Your task to perform on an android device: change notification settings in the gmail app Image 0: 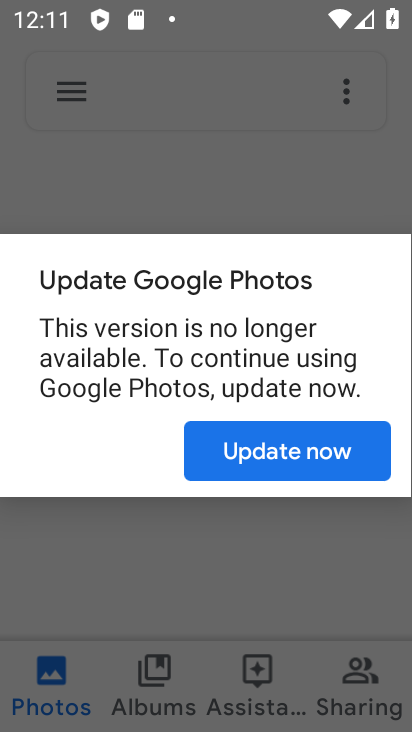
Step 0: press home button
Your task to perform on an android device: change notification settings in the gmail app Image 1: 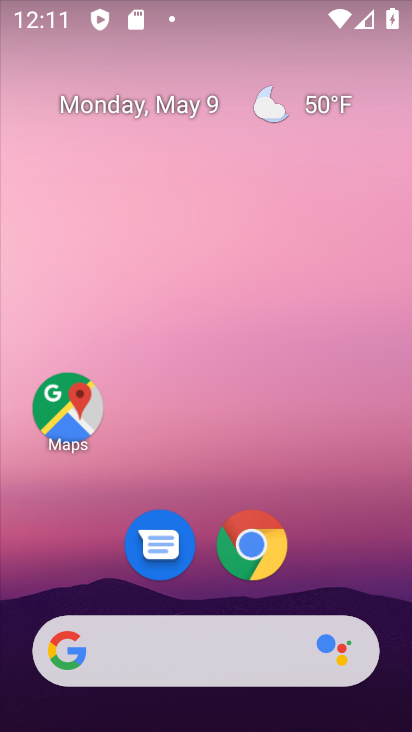
Step 1: drag from (198, 584) to (204, 93)
Your task to perform on an android device: change notification settings in the gmail app Image 2: 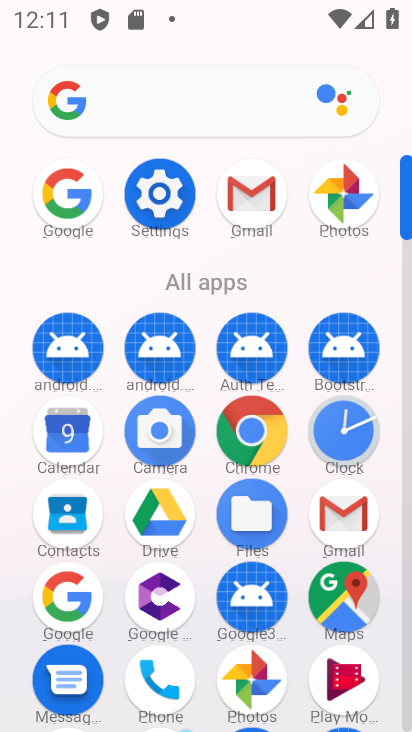
Step 2: click (242, 180)
Your task to perform on an android device: change notification settings in the gmail app Image 3: 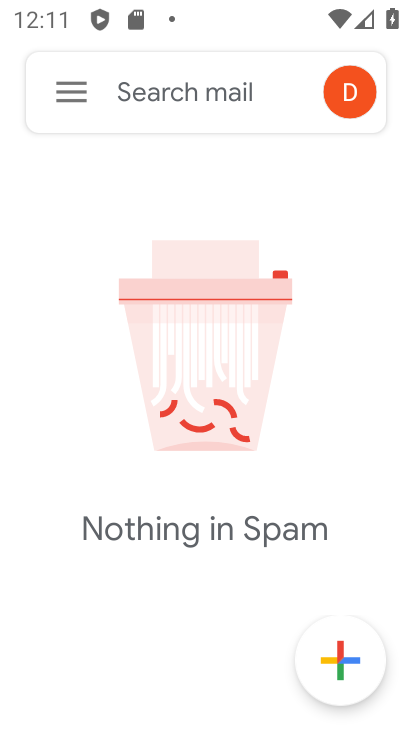
Step 3: click (64, 99)
Your task to perform on an android device: change notification settings in the gmail app Image 4: 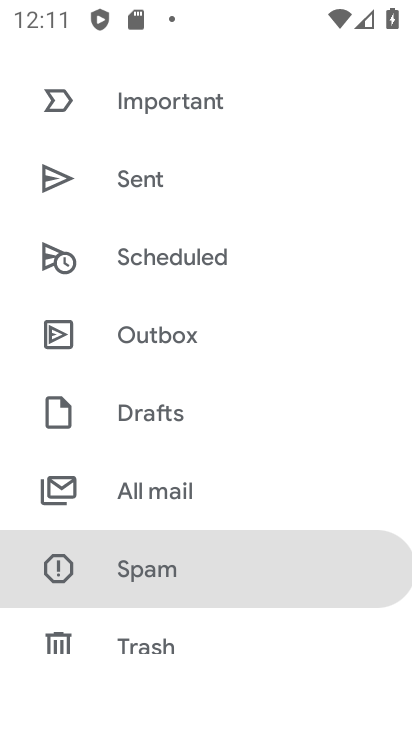
Step 4: drag from (238, 558) to (257, 256)
Your task to perform on an android device: change notification settings in the gmail app Image 5: 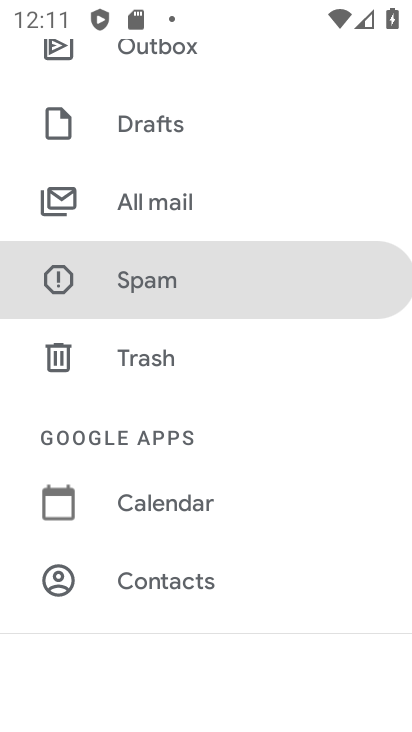
Step 5: drag from (265, 579) to (265, 343)
Your task to perform on an android device: change notification settings in the gmail app Image 6: 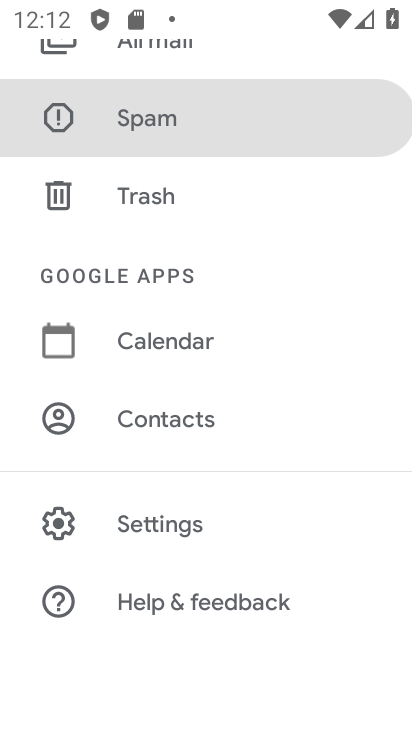
Step 6: click (197, 527)
Your task to perform on an android device: change notification settings in the gmail app Image 7: 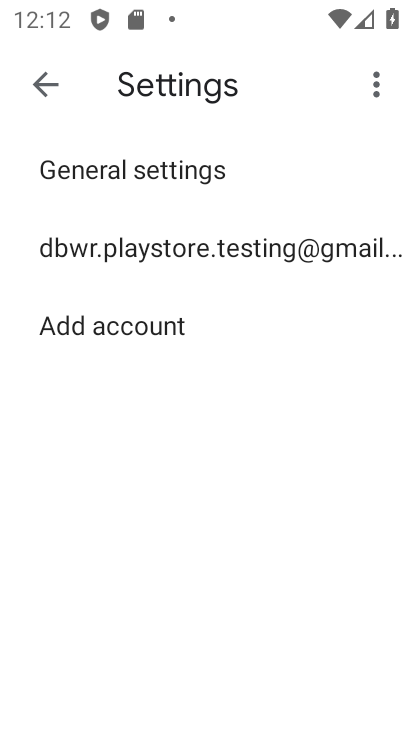
Step 7: click (275, 232)
Your task to perform on an android device: change notification settings in the gmail app Image 8: 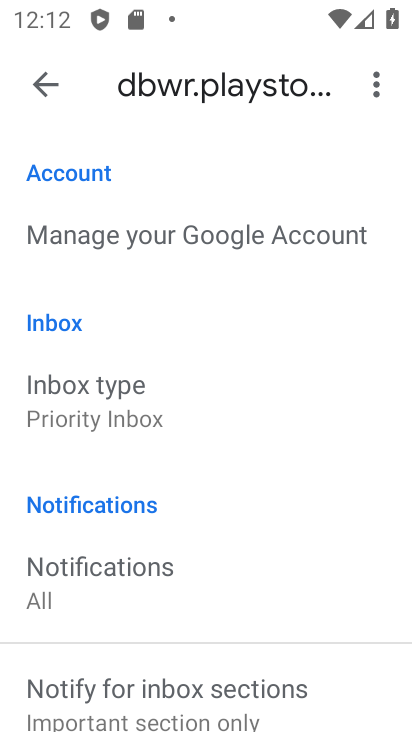
Step 8: drag from (169, 632) to (218, 284)
Your task to perform on an android device: change notification settings in the gmail app Image 9: 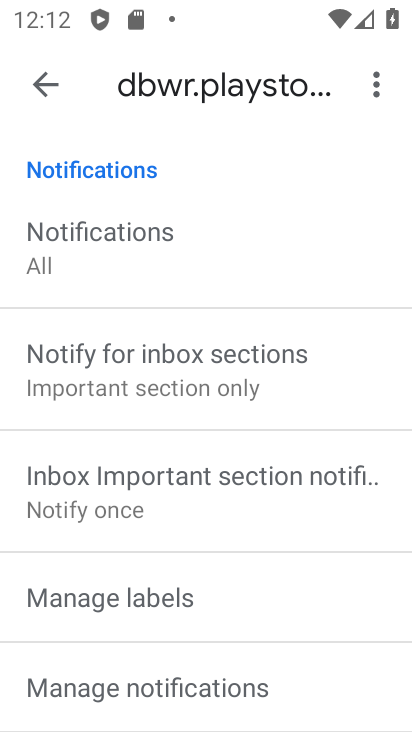
Step 9: click (171, 708)
Your task to perform on an android device: change notification settings in the gmail app Image 10: 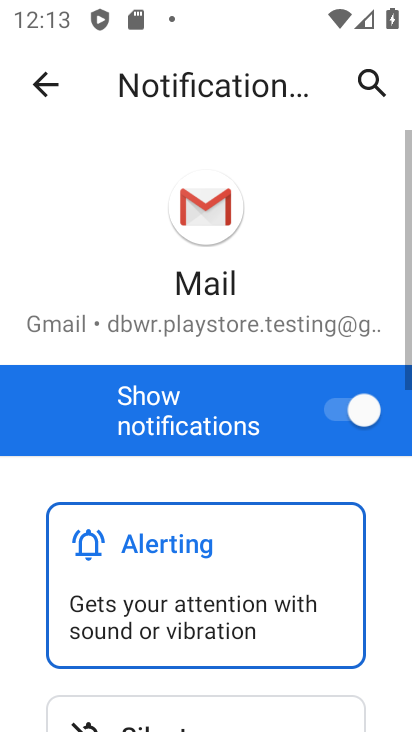
Step 10: click (321, 401)
Your task to perform on an android device: change notification settings in the gmail app Image 11: 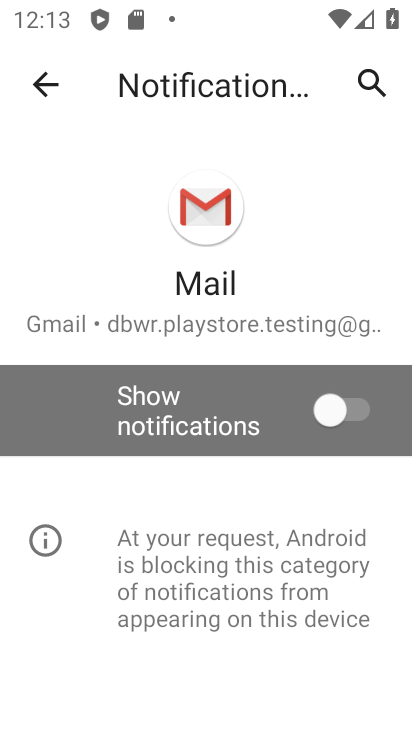
Step 11: task complete